Your task to perform on an android device: open the mobile data screen to see how much data has been used Image 0: 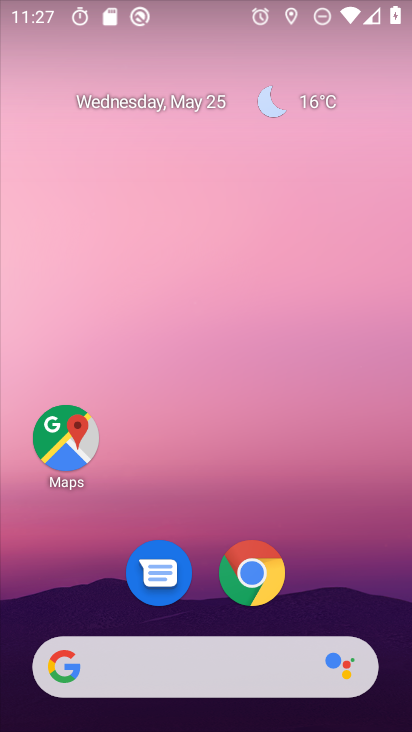
Step 0: drag from (363, 630) to (292, 15)
Your task to perform on an android device: open the mobile data screen to see how much data has been used Image 1: 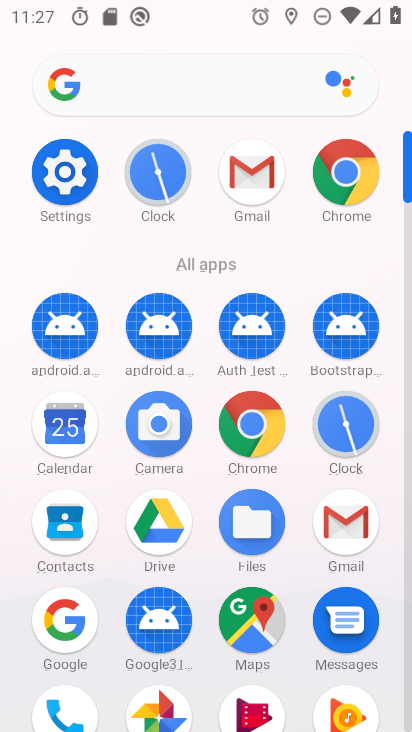
Step 1: click (63, 194)
Your task to perform on an android device: open the mobile data screen to see how much data has been used Image 2: 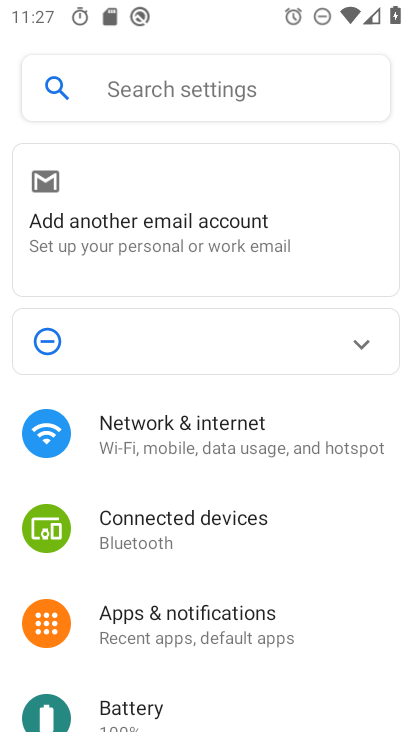
Step 2: click (181, 444)
Your task to perform on an android device: open the mobile data screen to see how much data has been used Image 3: 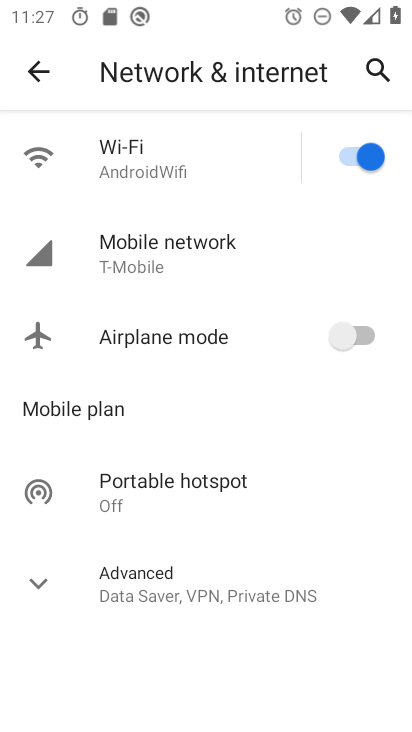
Step 3: click (147, 251)
Your task to perform on an android device: open the mobile data screen to see how much data has been used Image 4: 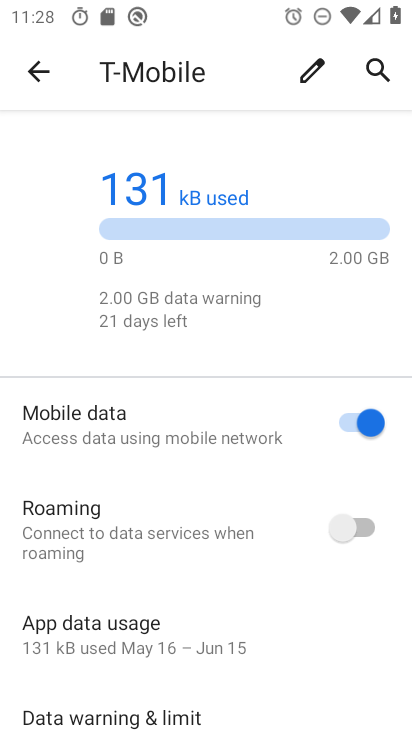
Step 4: click (74, 635)
Your task to perform on an android device: open the mobile data screen to see how much data has been used Image 5: 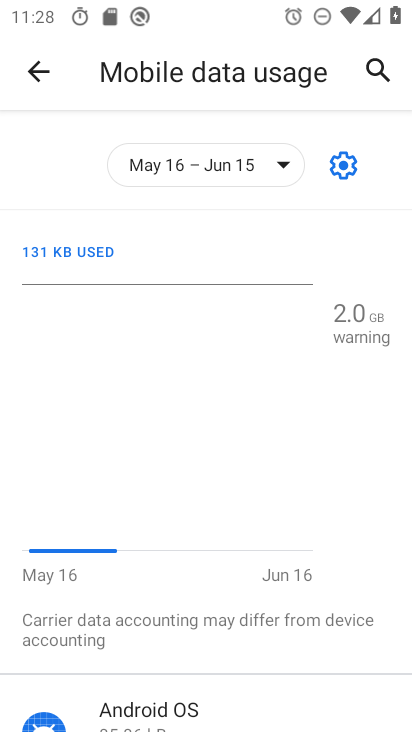
Step 5: task complete